Your task to perform on an android device: add a contact in the contacts app Image 0: 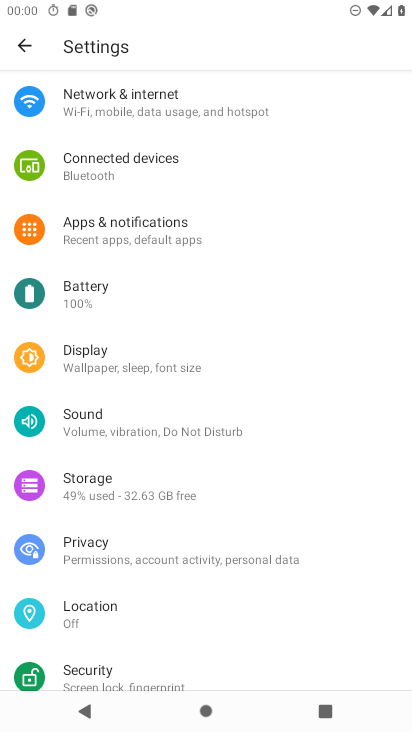
Step 0: press home button
Your task to perform on an android device: add a contact in the contacts app Image 1: 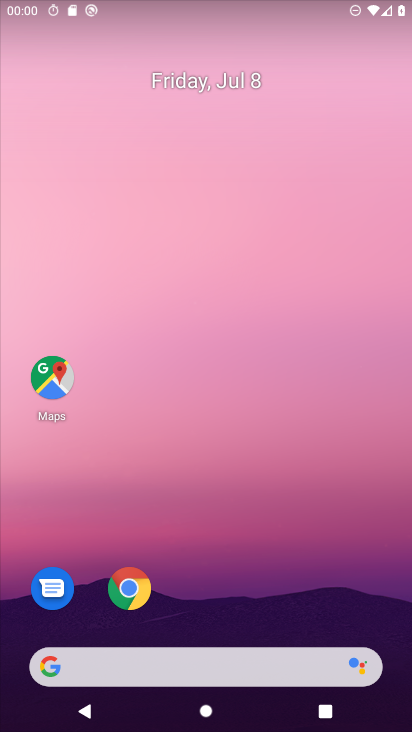
Step 1: drag from (294, 615) to (345, 142)
Your task to perform on an android device: add a contact in the contacts app Image 2: 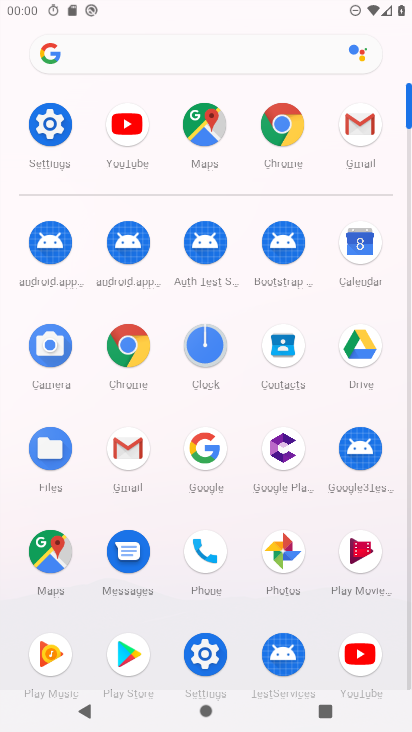
Step 2: click (293, 347)
Your task to perform on an android device: add a contact in the contacts app Image 3: 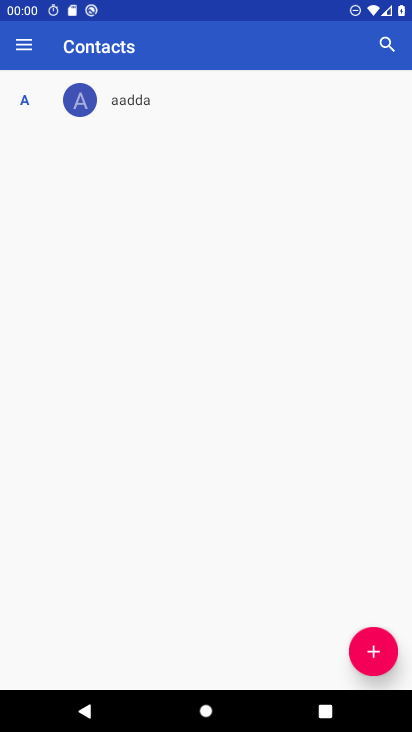
Step 3: click (380, 648)
Your task to perform on an android device: add a contact in the contacts app Image 4: 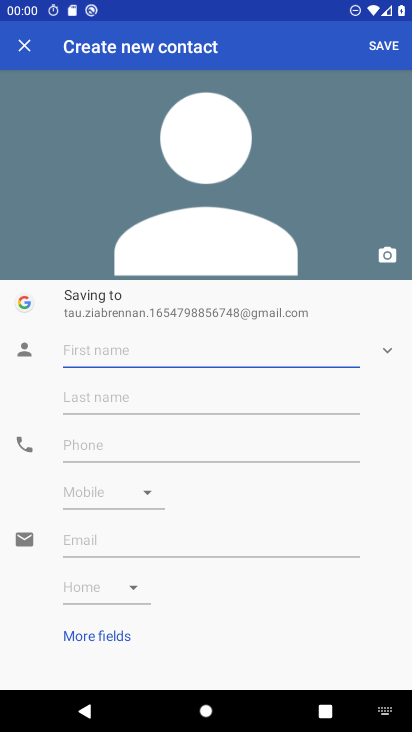
Step 4: type "bitcoin"
Your task to perform on an android device: add a contact in the contacts app Image 5: 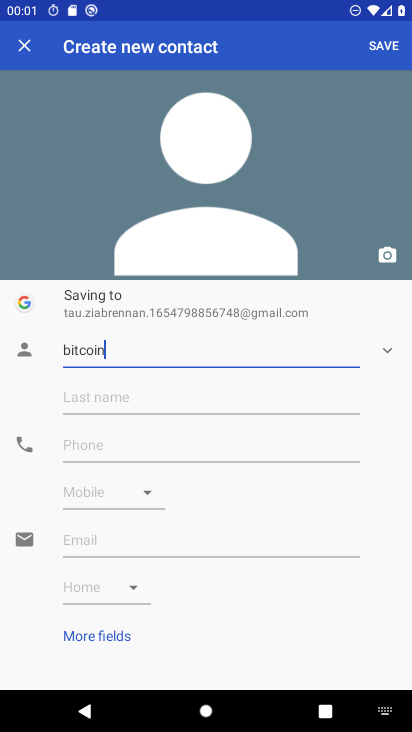
Step 5: click (379, 46)
Your task to perform on an android device: add a contact in the contacts app Image 6: 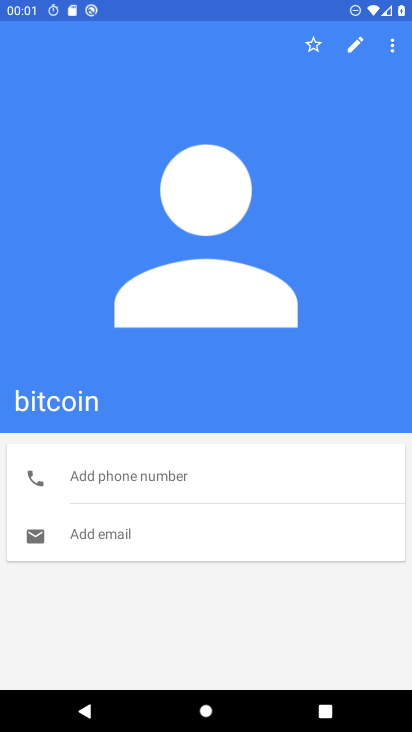
Step 6: task complete